Your task to perform on an android device: Go to Google Image 0: 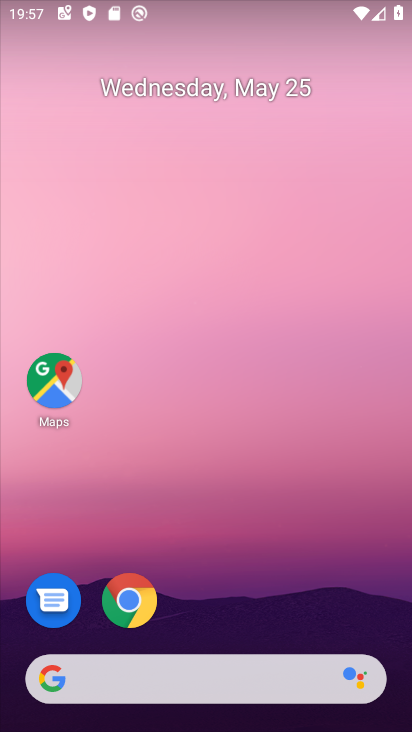
Step 0: drag from (337, 598) to (372, 245)
Your task to perform on an android device: Go to Google Image 1: 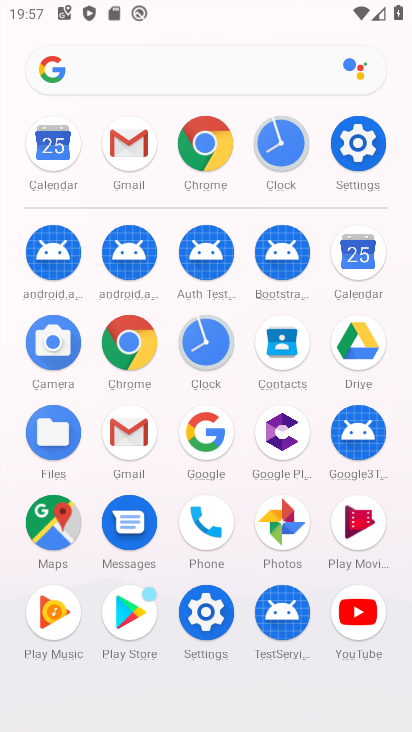
Step 1: click (202, 450)
Your task to perform on an android device: Go to Google Image 2: 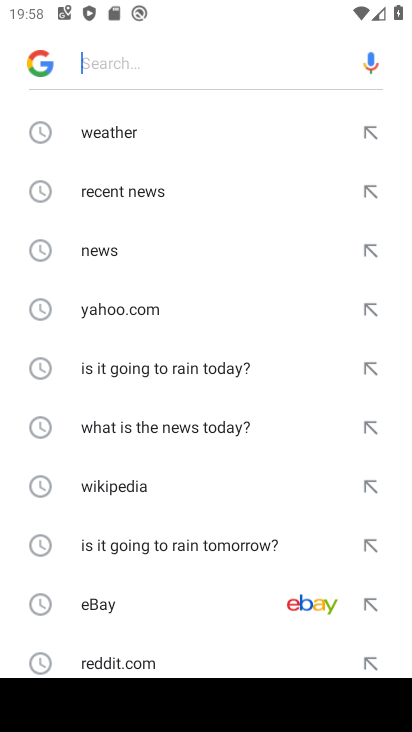
Step 2: task complete